Your task to perform on an android device: Open Yahoo.com Image 0: 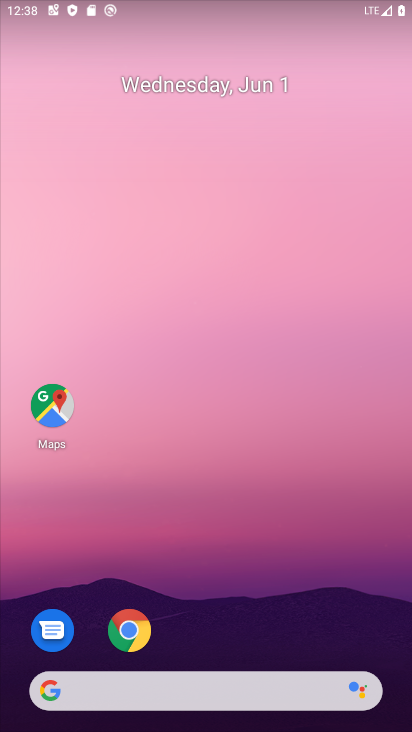
Step 0: click (195, 690)
Your task to perform on an android device: Open Yahoo.com Image 1: 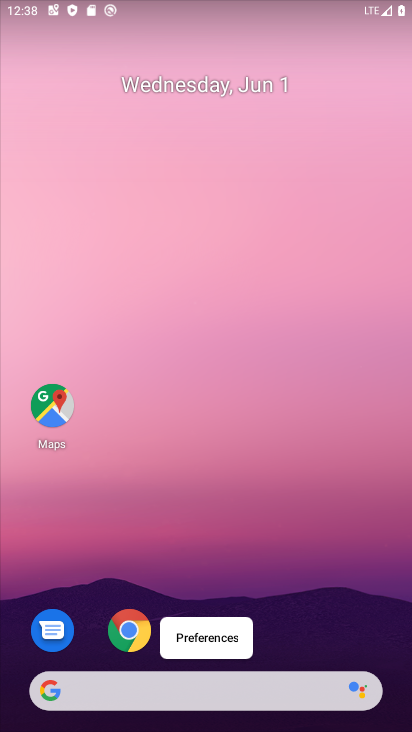
Step 1: click (238, 694)
Your task to perform on an android device: Open Yahoo.com Image 2: 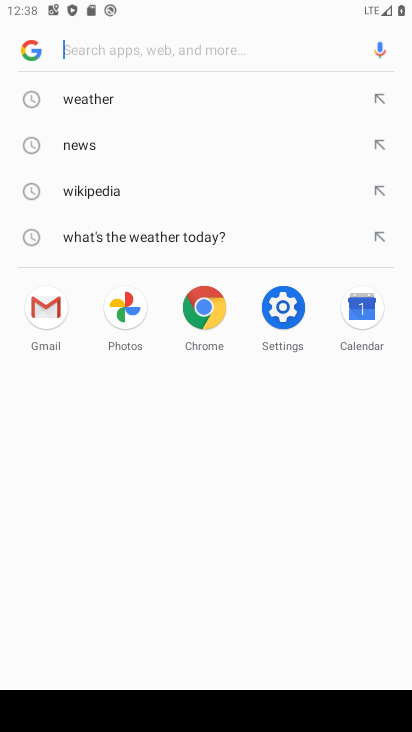
Step 2: type "Yahoo.com"
Your task to perform on an android device: Open Yahoo.com Image 3: 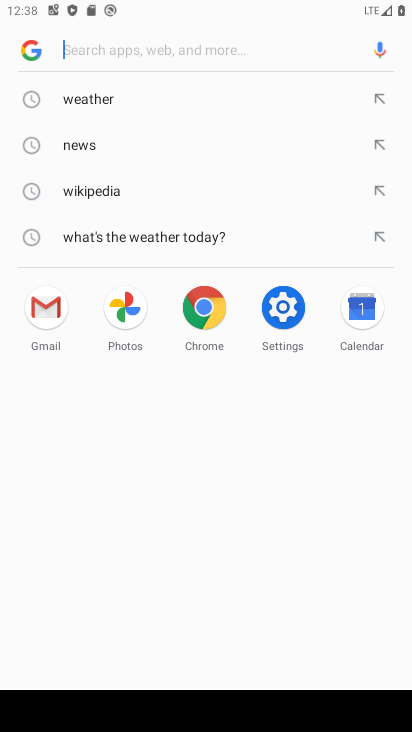
Step 3: click (123, 47)
Your task to perform on an android device: Open Yahoo.com Image 4: 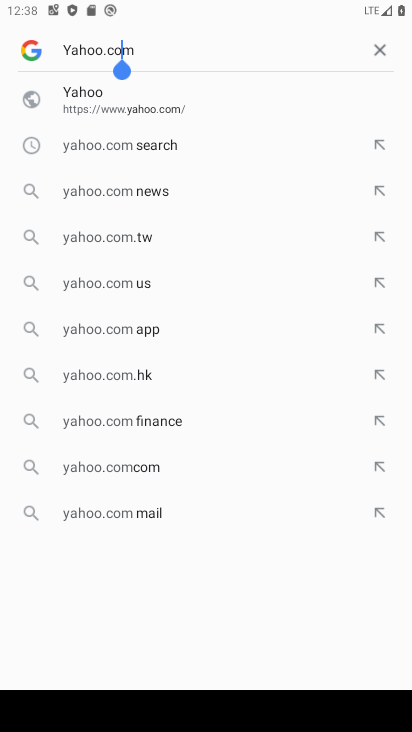
Step 4: click (82, 82)
Your task to perform on an android device: Open Yahoo.com Image 5: 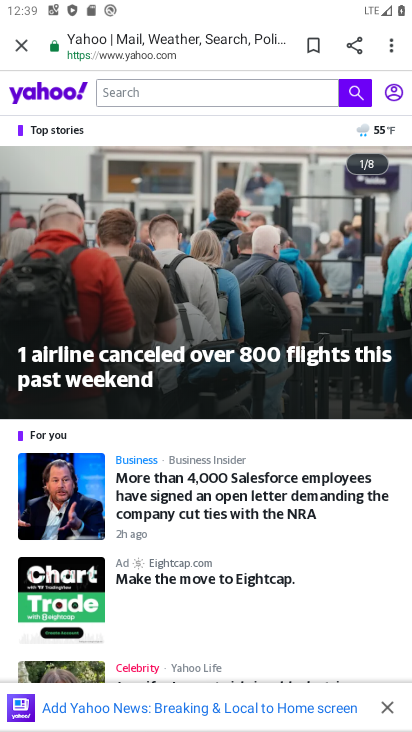
Step 5: task complete